Your task to perform on an android device: Go to calendar. Show me events next week Image 0: 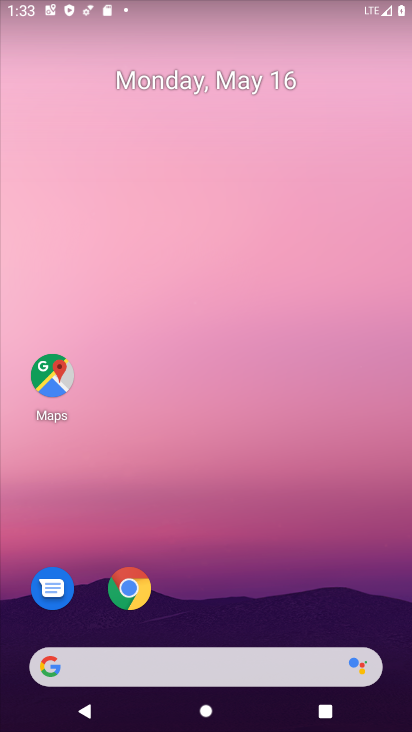
Step 0: drag from (242, 581) to (166, 80)
Your task to perform on an android device: Go to calendar. Show me events next week Image 1: 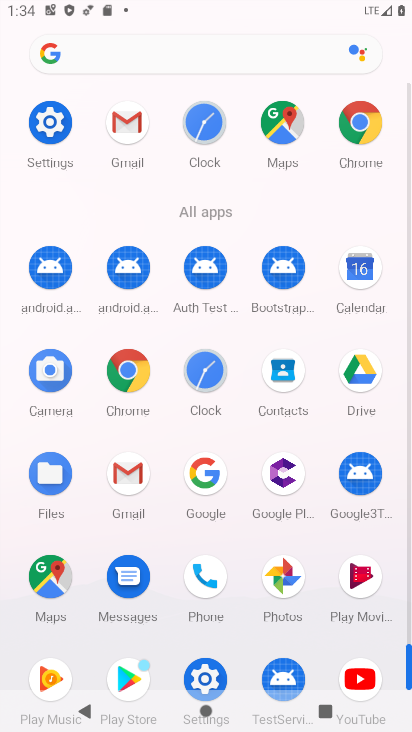
Step 1: click (362, 266)
Your task to perform on an android device: Go to calendar. Show me events next week Image 2: 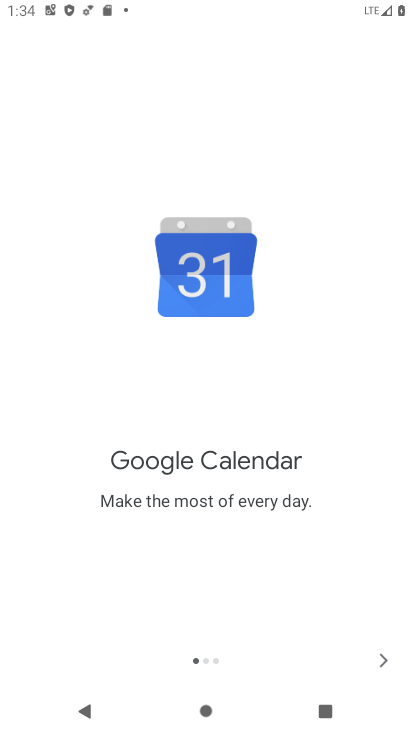
Step 2: click (382, 659)
Your task to perform on an android device: Go to calendar. Show me events next week Image 3: 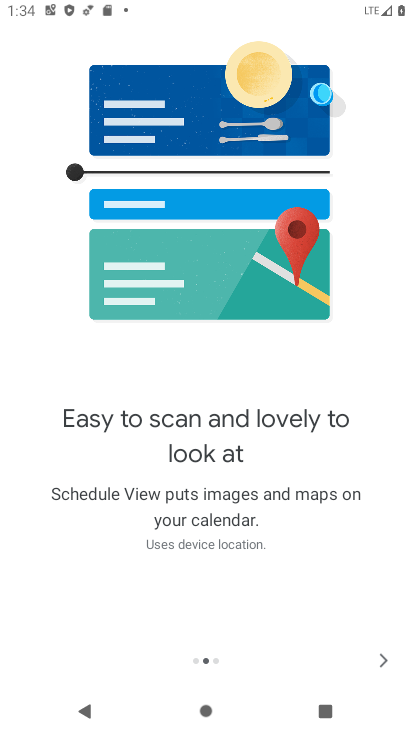
Step 3: click (382, 659)
Your task to perform on an android device: Go to calendar. Show me events next week Image 4: 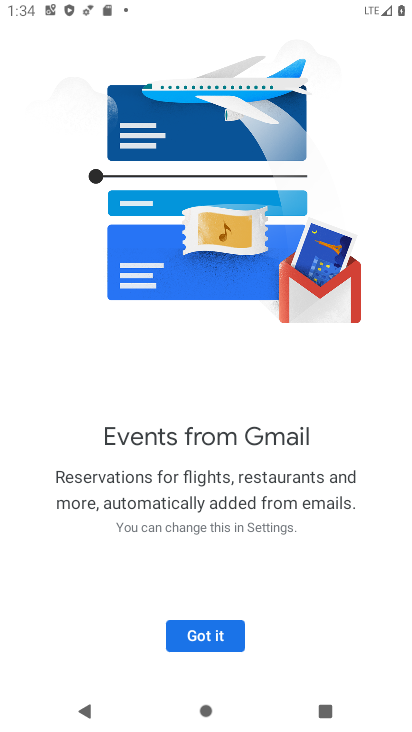
Step 4: click (203, 633)
Your task to perform on an android device: Go to calendar. Show me events next week Image 5: 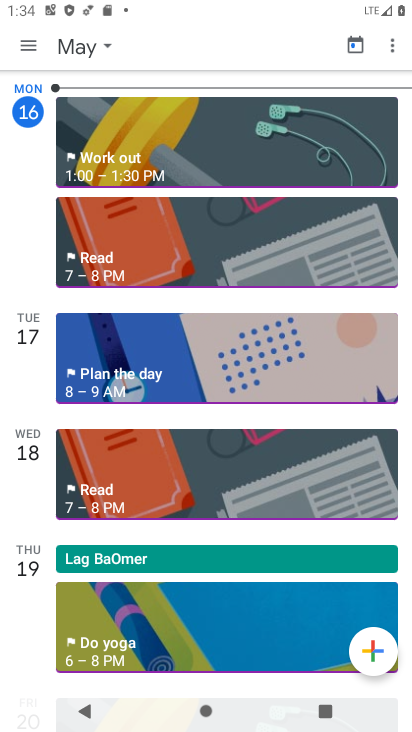
Step 5: click (109, 46)
Your task to perform on an android device: Go to calendar. Show me events next week Image 6: 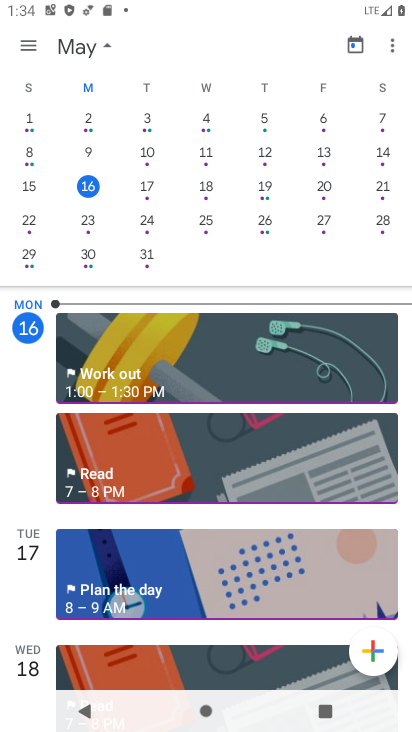
Step 6: click (93, 214)
Your task to perform on an android device: Go to calendar. Show me events next week Image 7: 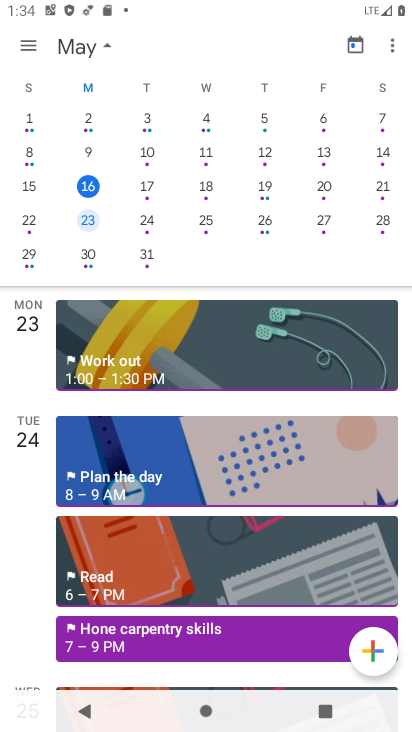
Step 7: click (27, 42)
Your task to perform on an android device: Go to calendar. Show me events next week Image 8: 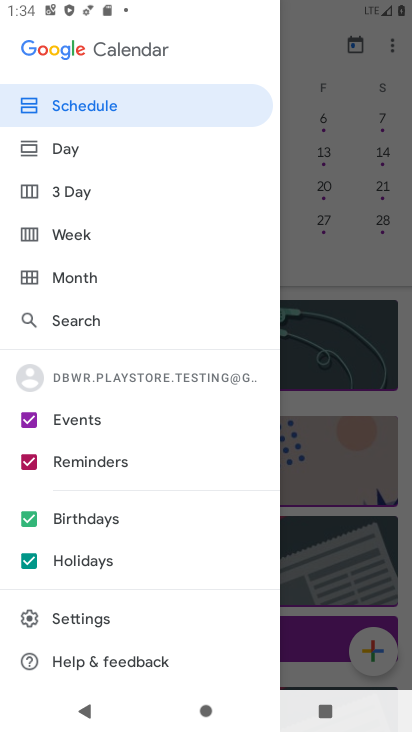
Step 8: click (69, 232)
Your task to perform on an android device: Go to calendar. Show me events next week Image 9: 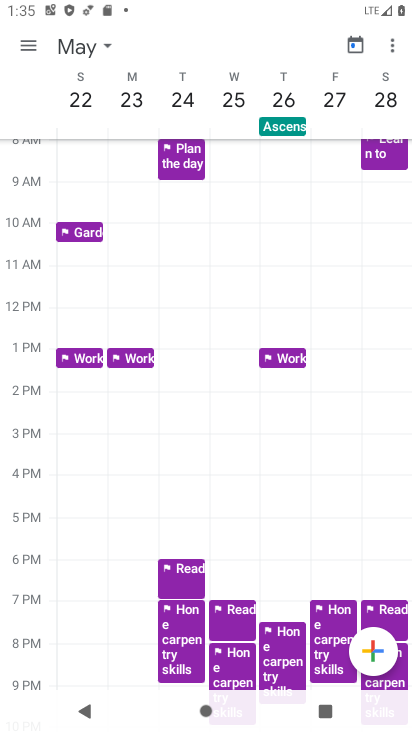
Step 9: task complete